Your task to perform on an android device: Open Google Image 0: 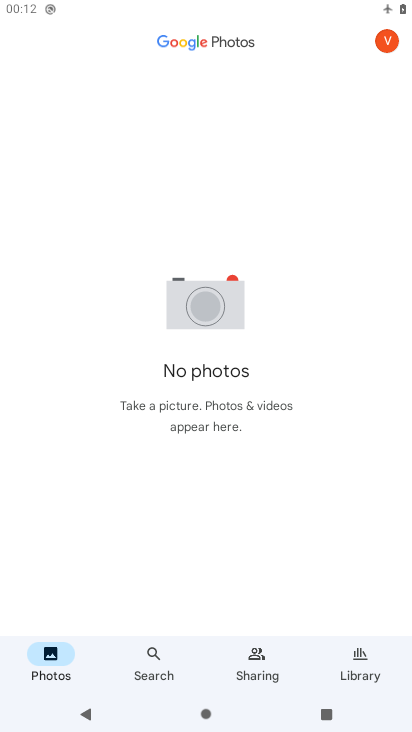
Step 0: press home button
Your task to perform on an android device: Open Google Image 1: 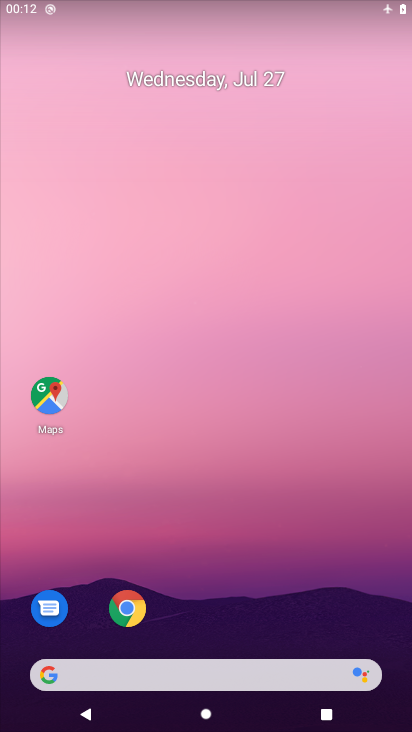
Step 1: drag from (297, 611) to (298, 111)
Your task to perform on an android device: Open Google Image 2: 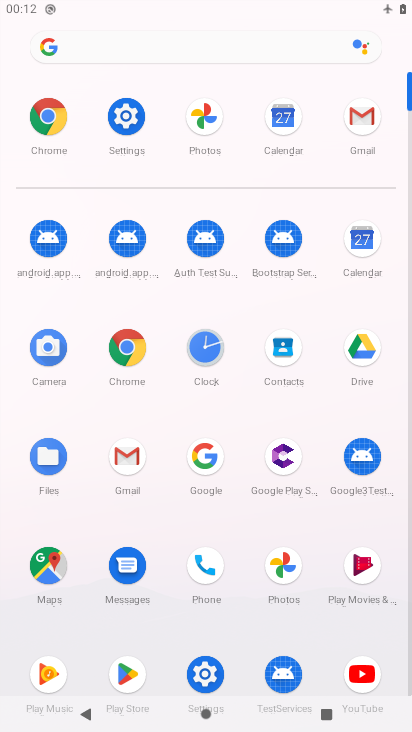
Step 2: click (194, 451)
Your task to perform on an android device: Open Google Image 3: 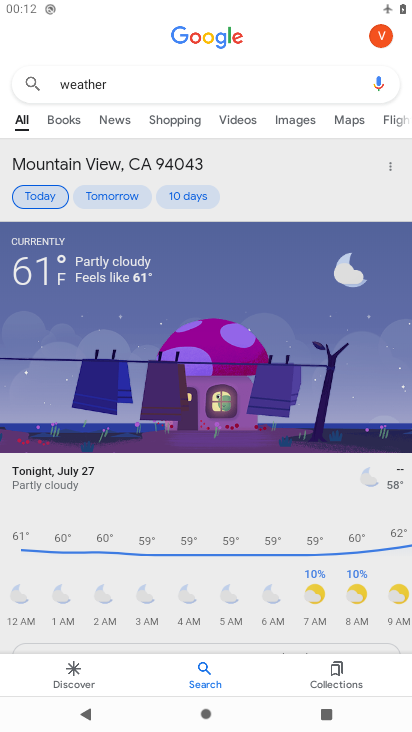
Step 3: task complete